Your task to perform on an android device: empty trash in google photos Image 0: 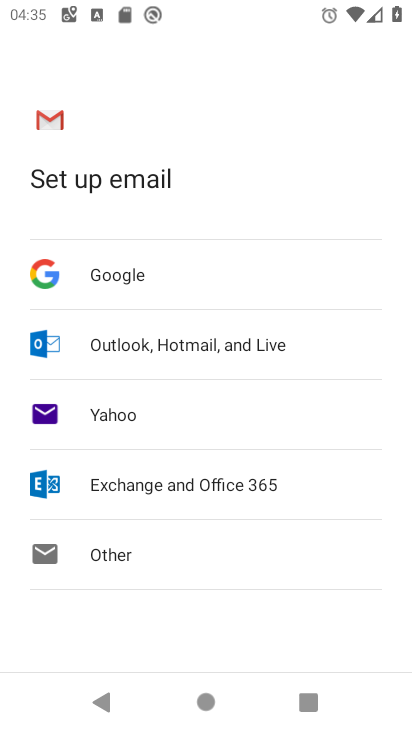
Step 0: press home button
Your task to perform on an android device: empty trash in google photos Image 1: 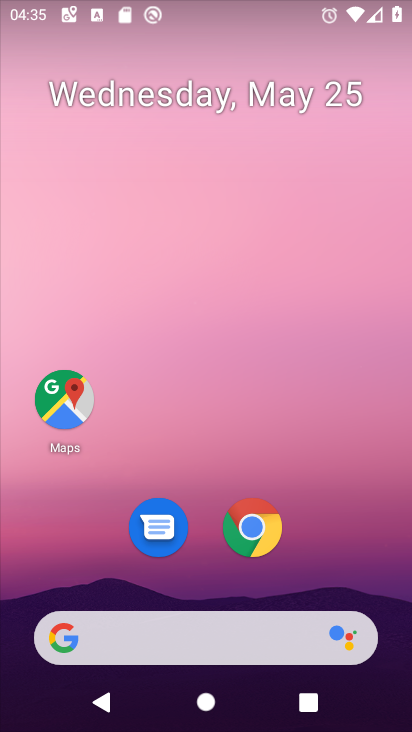
Step 1: drag from (191, 484) to (236, 98)
Your task to perform on an android device: empty trash in google photos Image 2: 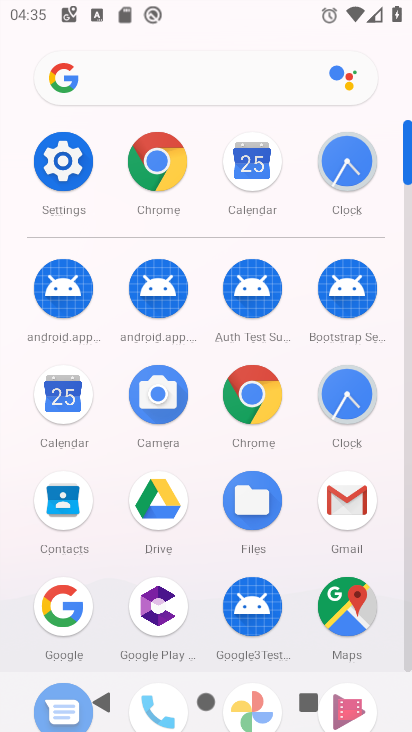
Step 2: drag from (285, 587) to (263, 362)
Your task to perform on an android device: empty trash in google photos Image 3: 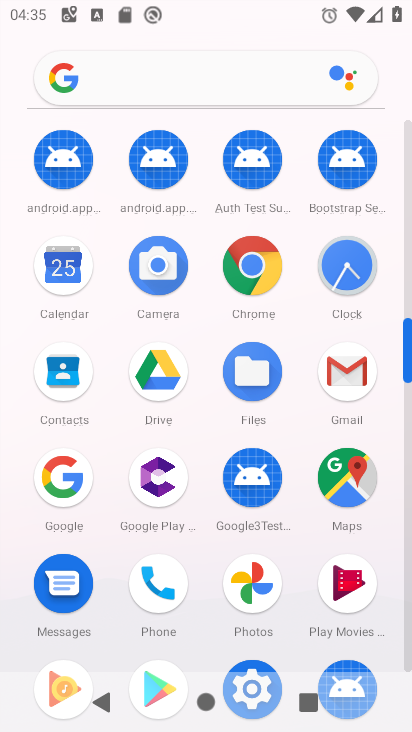
Step 3: click (254, 599)
Your task to perform on an android device: empty trash in google photos Image 4: 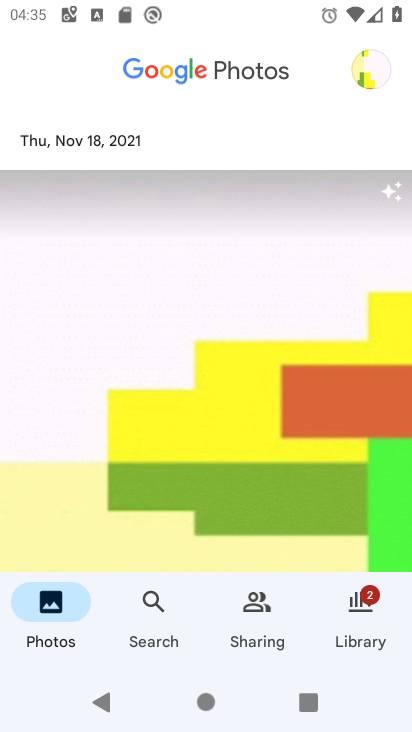
Step 4: click (59, 606)
Your task to perform on an android device: empty trash in google photos Image 5: 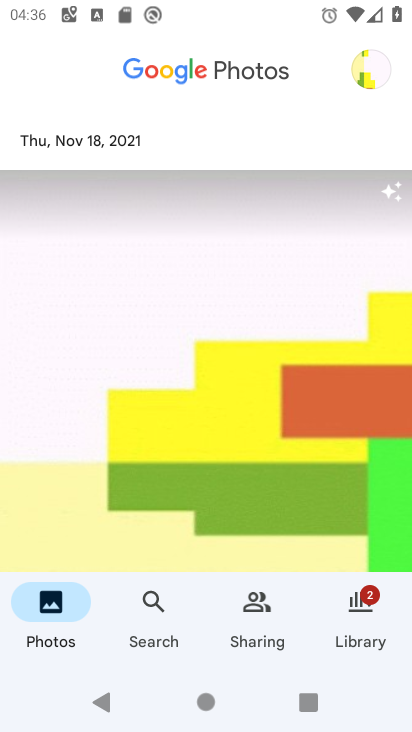
Step 5: click (357, 613)
Your task to perform on an android device: empty trash in google photos Image 6: 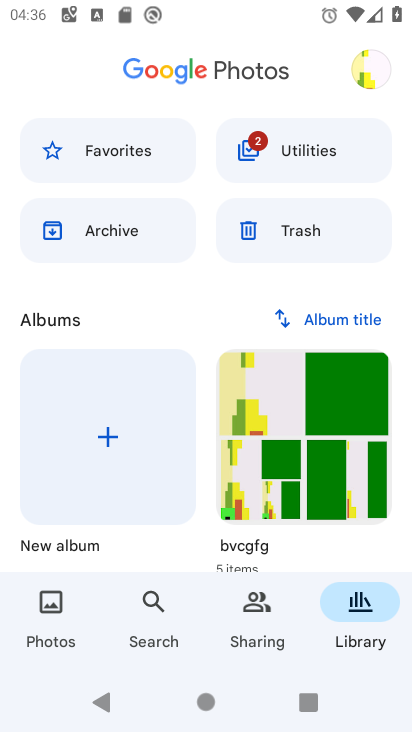
Step 6: click (317, 241)
Your task to perform on an android device: empty trash in google photos Image 7: 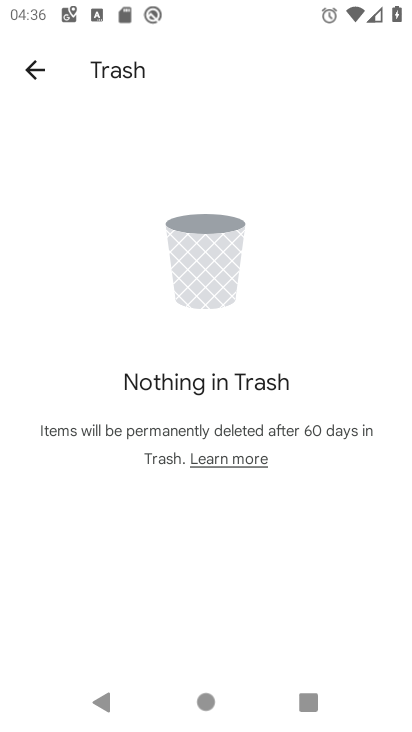
Step 7: task complete